Your task to perform on an android device: turn off translation in the chrome app Image 0: 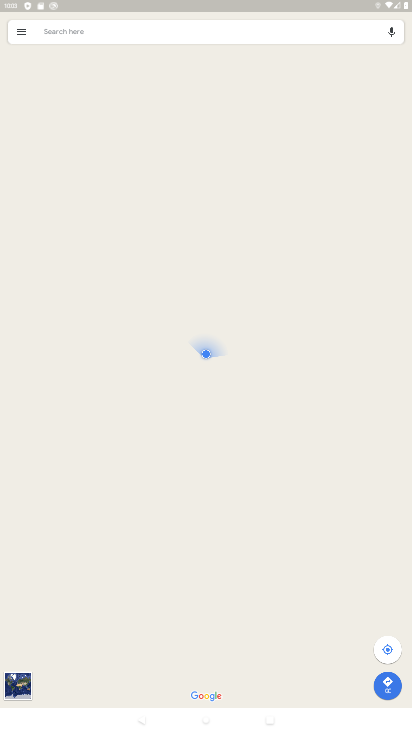
Step 0: press home button
Your task to perform on an android device: turn off translation in the chrome app Image 1: 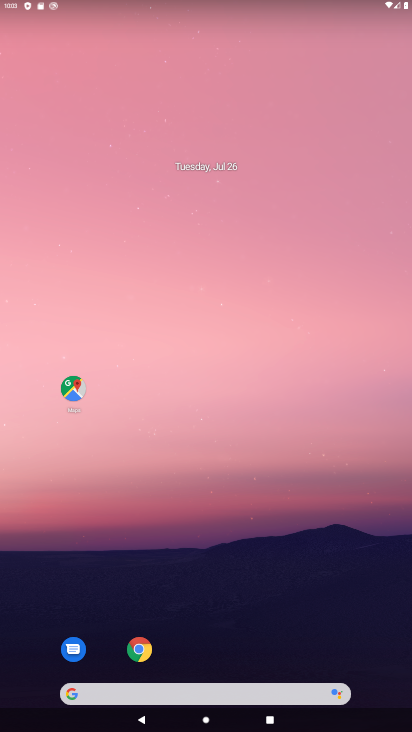
Step 1: drag from (254, 623) to (248, 148)
Your task to perform on an android device: turn off translation in the chrome app Image 2: 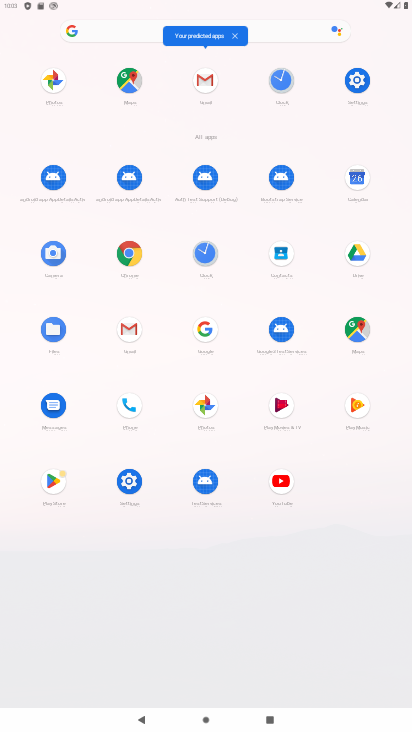
Step 2: click (124, 261)
Your task to perform on an android device: turn off translation in the chrome app Image 3: 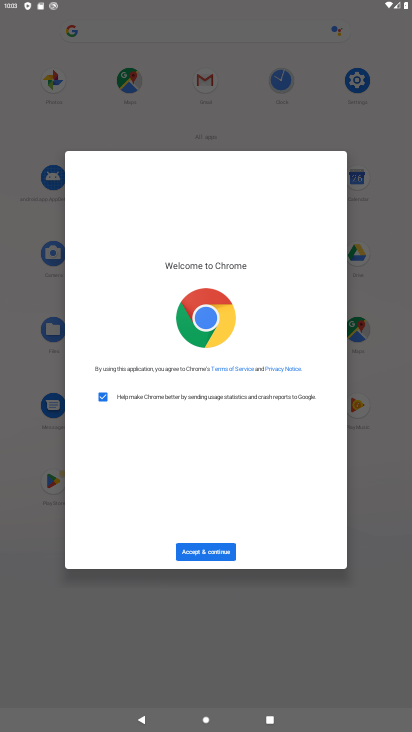
Step 3: click (224, 552)
Your task to perform on an android device: turn off translation in the chrome app Image 4: 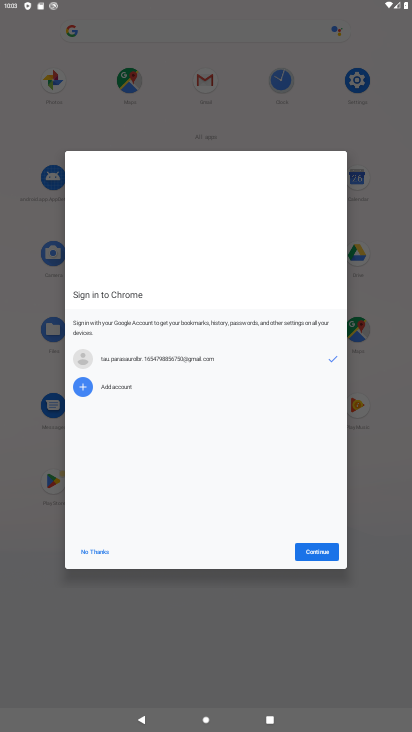
Step 4: click (334, 549)
Your task to perform on an android device: turn off translation in the chrome app Image 5: 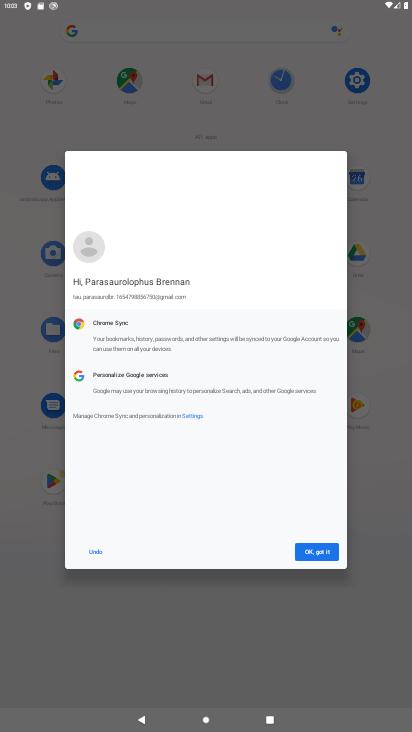
Step 5: click (330, 550)
Your task to perform on an android device: turn off translation in the chrome app Image 6: 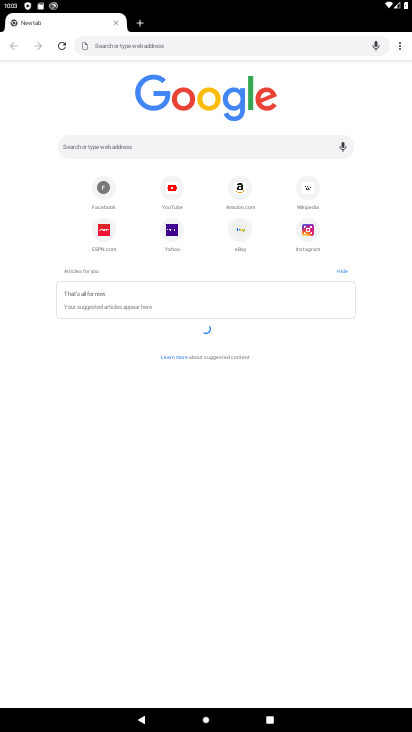
Step 6: click (399, 50)
Your task to perform on an android device: turn off translation in the chrome app Image 7: 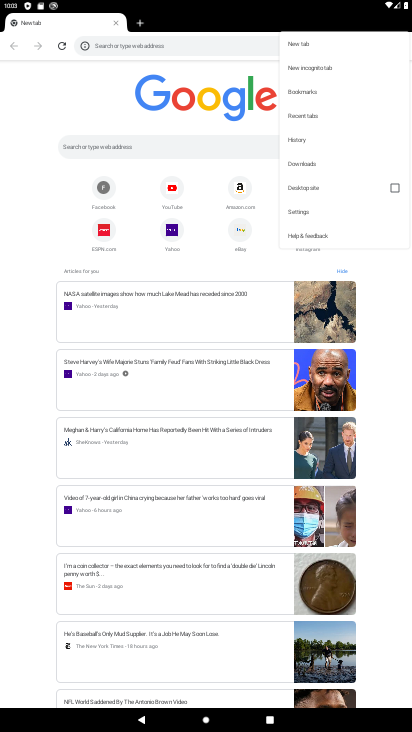
Step 7: click (303, 209)
Your task to perform on an android device: turn off translation in the chrome app Image 8: 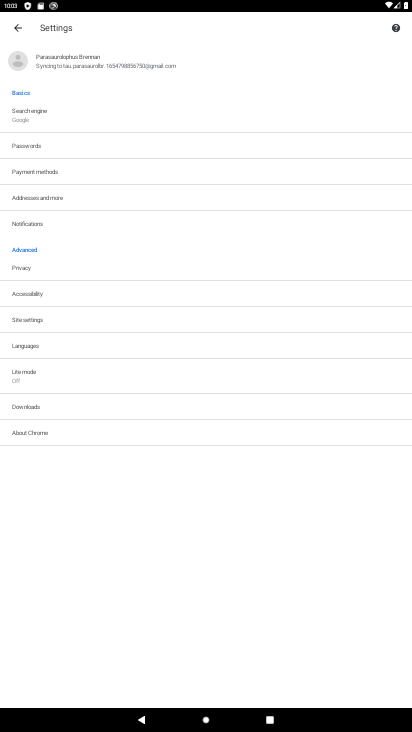
Step 8: drag from (51, 318) to (42, 167)
Your task to perform on an android device: turn off translation in the chrome app Image 9: 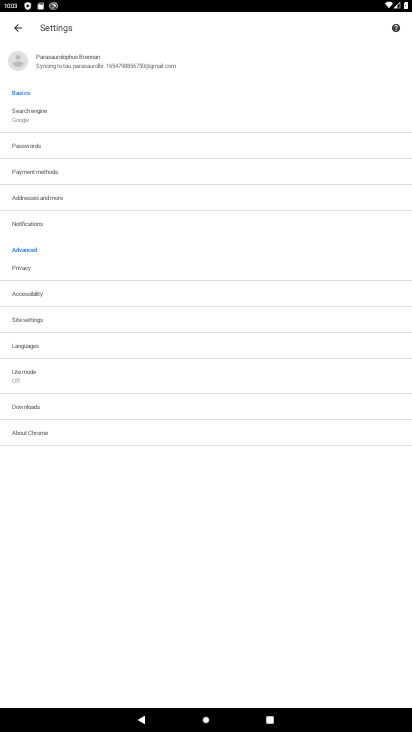
Step 9: click (63, 346)
Your task to perform on an android device: turn off translation in the chrome app Image 10: 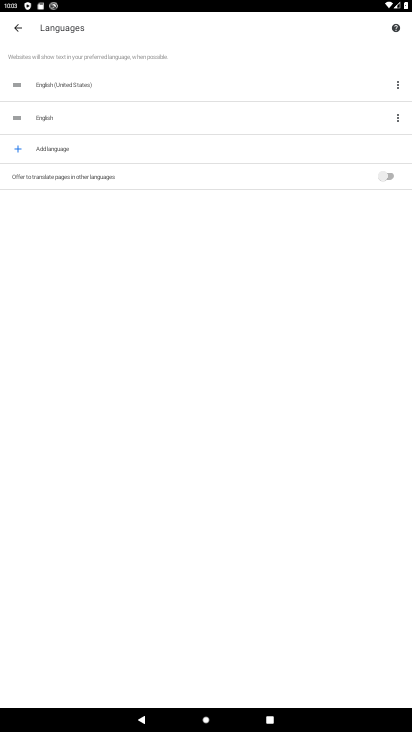
Step 10: task complete